Your task to perform on an android device: stop showing notifications on the lock screen Image 0: 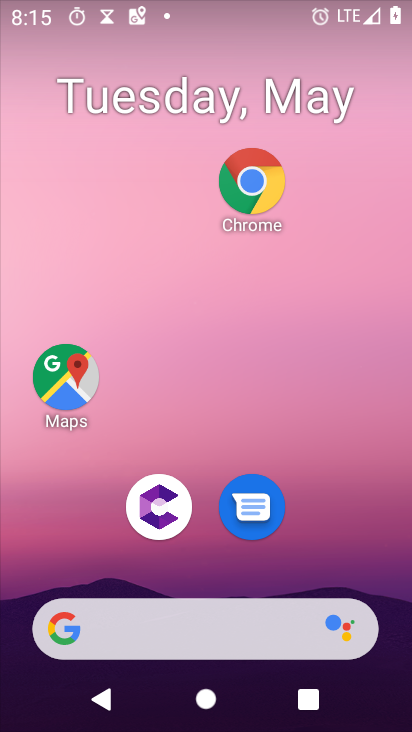
Step 0: drag from (258, 587) to (287, 44)
Your task to perform on an android device: stop showing notifications on the lock screen Image 1: 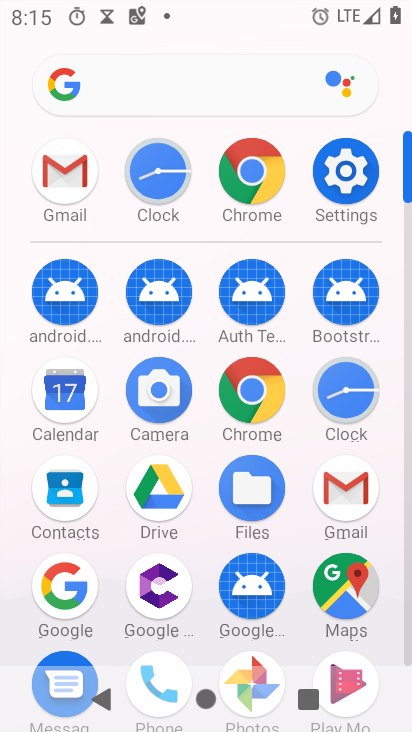
Step 1: click (343, 157)
Your task to perform on an android device: stop showing notifications on the lock screen Image 2: 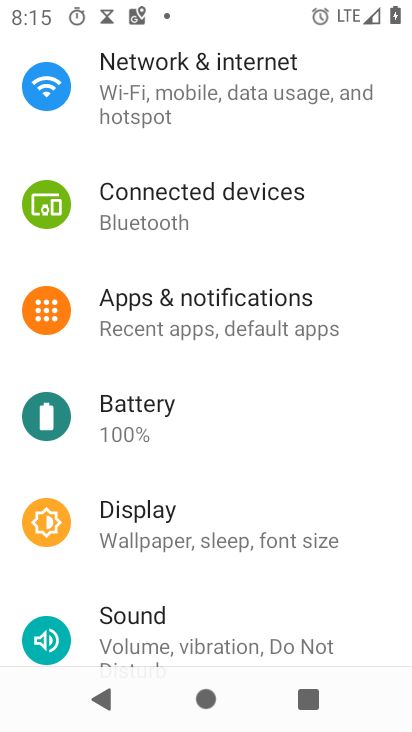
Step 2: click (236, 325)
Your task to perform on an android device: stop showing notifications on the lock screen Image 3: 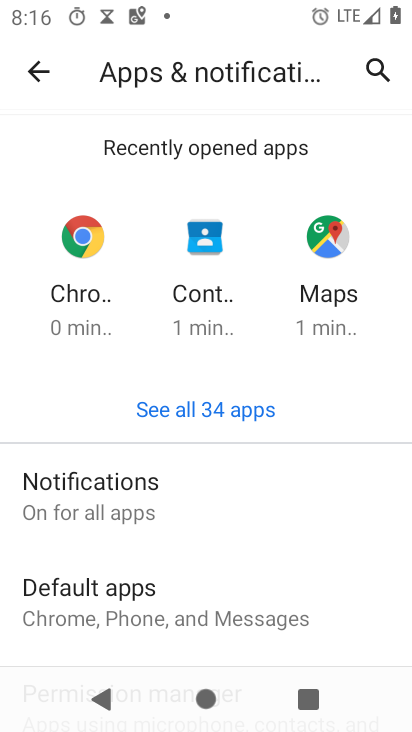
Step 3: click (133, 507)
Your task to perform on an android device: stop showing notifications on the lock screen Image 4: 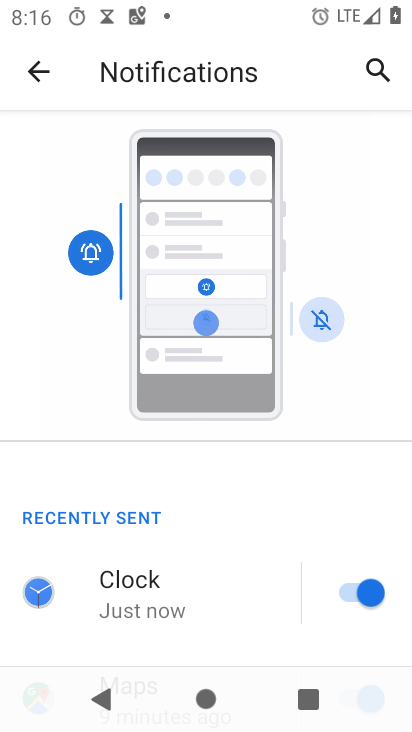
Step 4: drag from (144, 641) to (174, 418)
Your task to perform on an android device: stop showing notifications on the lock screen Image 5: 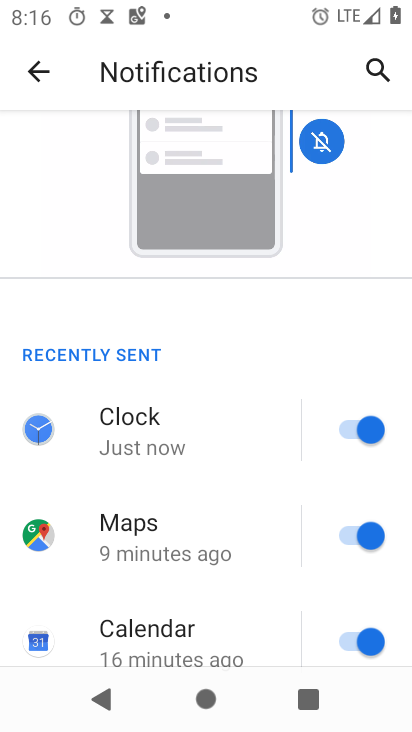
Step 5: drag from (231, 639) to (228, 442)
Your task to perform on an android device: stop showing notifications on the lock screen Image 6: 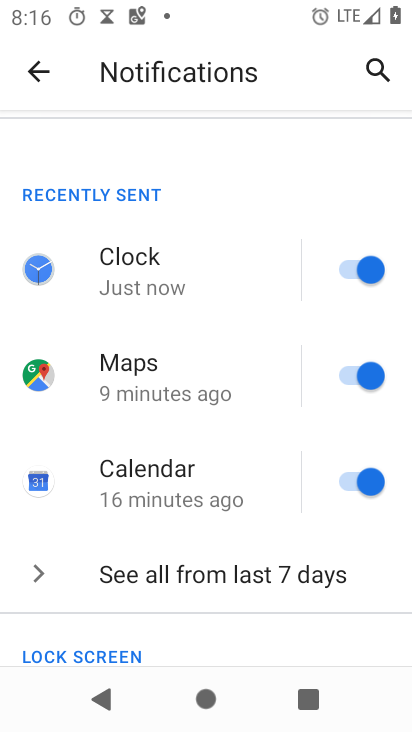
Step 6: drag from (190, 586) to (178, 465)
Your task to perform on an android device: stop showing notifications on the lock screen Image 7: 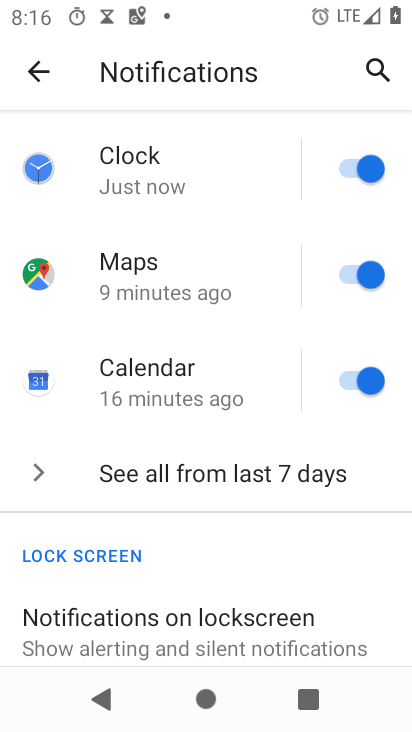
Step 7: click (196, 609)
Your task to perform on an android device: stop showing notifications on the lock screen Image 8: 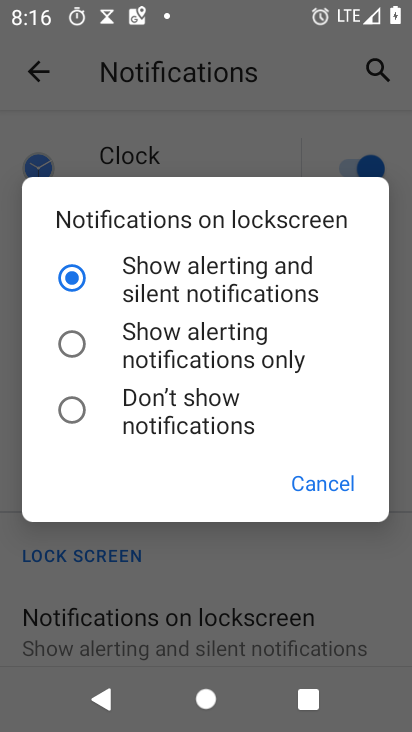
Step 8: click (189, 407)
Your task to perform on an android device: stop showing notifications on the lock screen Image 9: 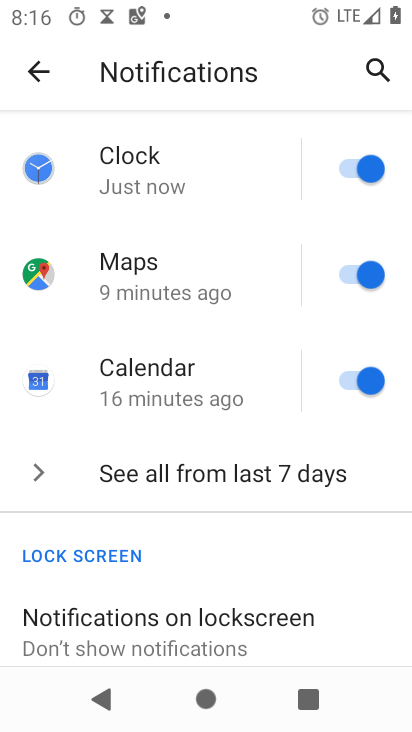
Step 9: task complete